Your task to perform on an android device: Go to display settings Image 0: 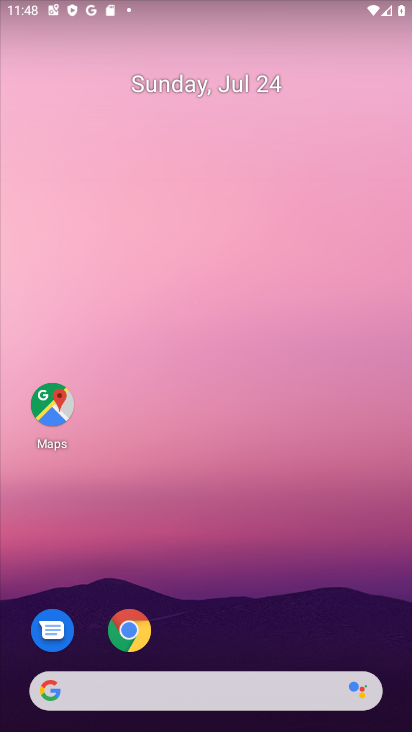
Step 0: drag from (238, 544) to (233, 47)
Your task to perform on an android device: Go to display settings Image 1: 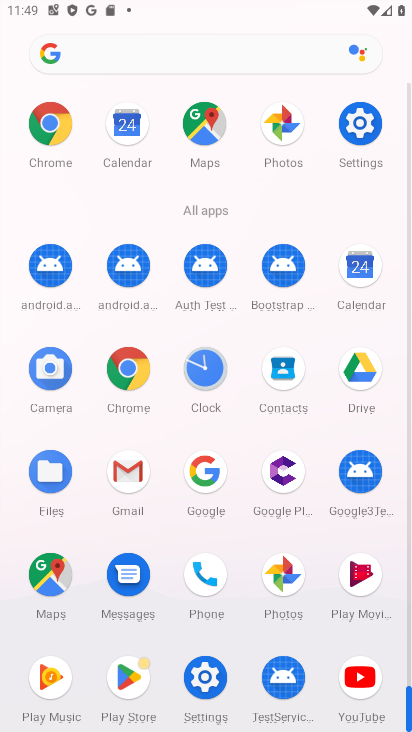
Step 1: click (201, 673)
Your task to perform on an android device: Go to display settings Image 2: 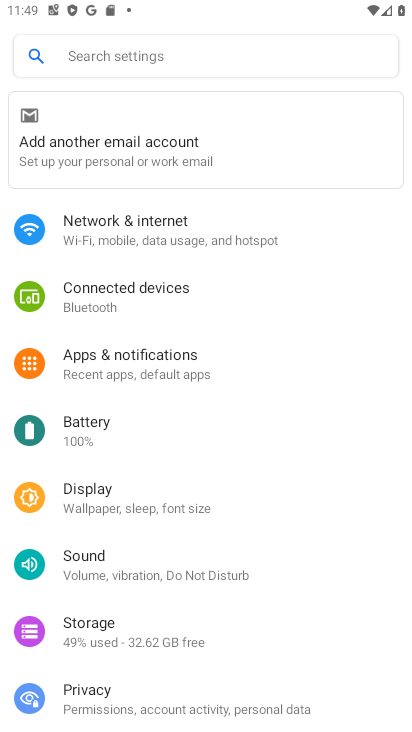
Step 2: click (164, 500)
Your task to perform on an android device: Go to display settings Image 3: 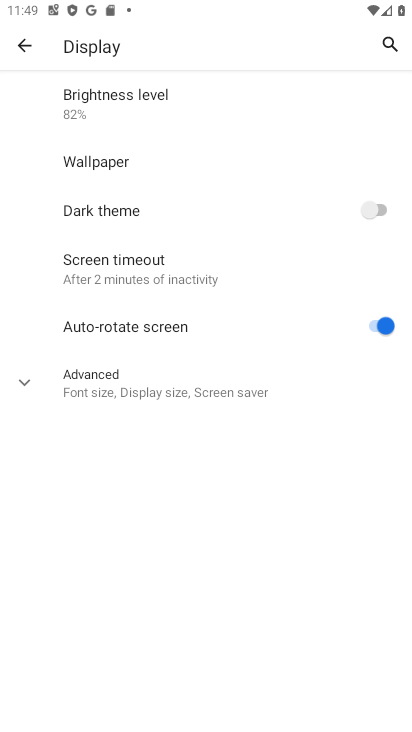
Step 3: task complete